Your task to perform on an android device: turn on notifications settings in the gmail app Image 0: 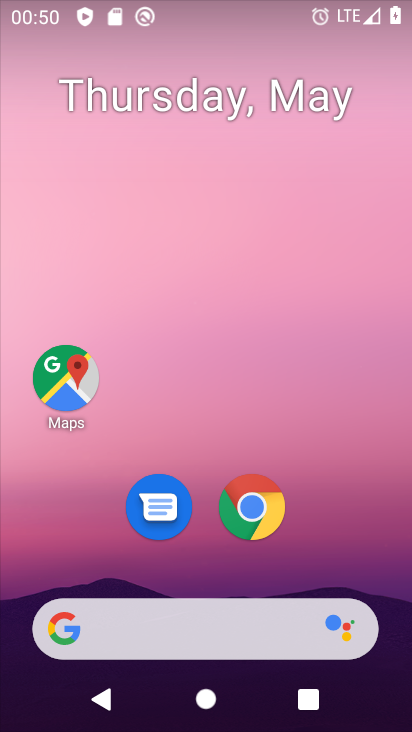
Step 0: drag from (194, 573) to (195, 211)
Your task to perform on an android device: turn on notifications settings in the gmail app Image 1: 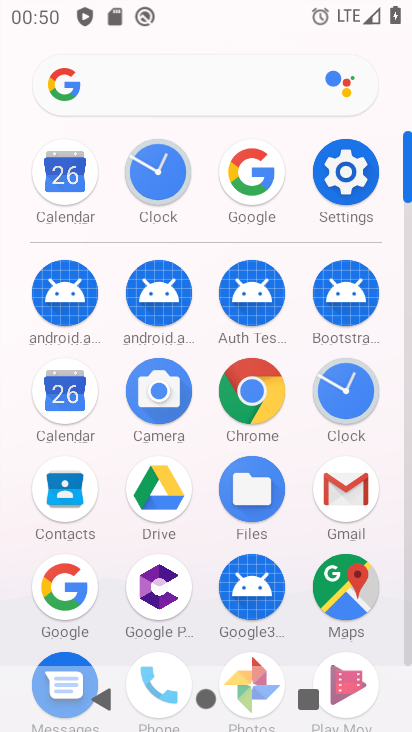
Step 1: click (344, 498)
Your task to perform on an android device: turn on notifications settings in the gmail app Image 2: 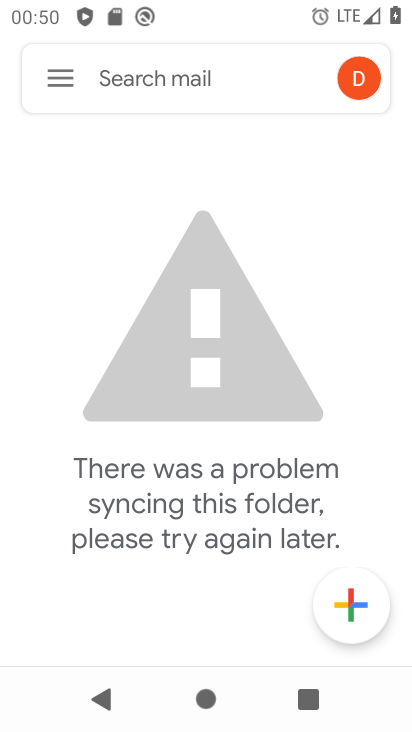
Step 2: click (68, 90)
Your task to perform on an android device: turn on notifications settings in the gmail app Image 3: 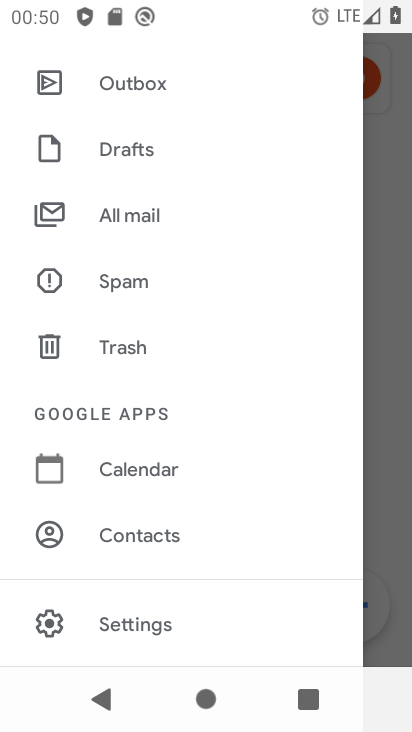
Step 3: click (205, 609)
Your task to perform on an android device: turn on notifications settings in the gmail app Image 4: 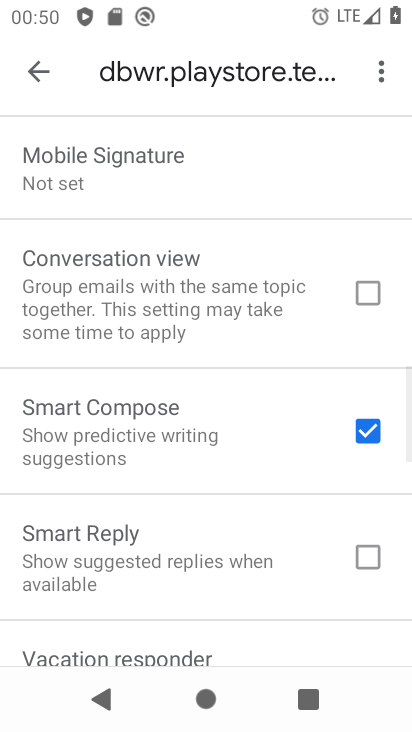
Step 4: drag from (177, 589) to (191, 262)
Your task to perform on an android device: turn on notifications settings in the gmail app Image 5: 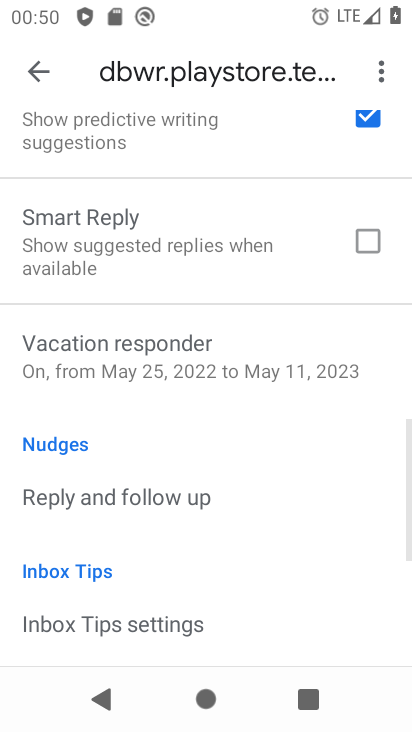
Step 5: drag from (191, 527) to (209, 331)
Your task to perform on an android device: turn on notifications settings in the gmail app Image 6: 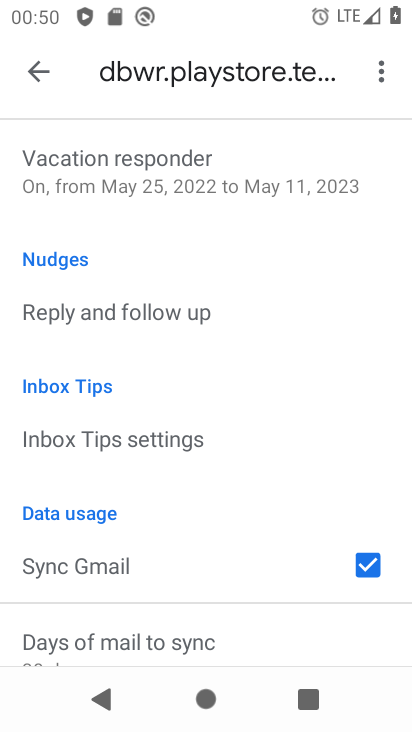
Step 6: drag from (188, 544) to (227, 319)
Your task to perform on an android device: turn on notifications settings in the gmail app Image 7: 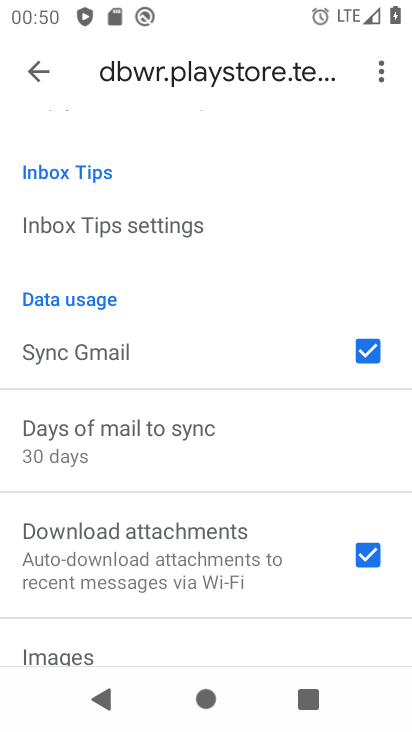
Step 7: drag from (239, 208) to (203, 505)
Your task to perform on an android device: turn on notifications settings in the gmail app Image 8: 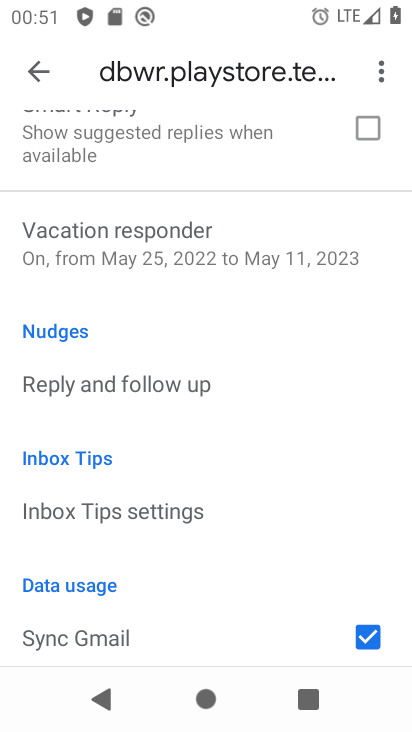
Step 8: drag from (222, 225) to (222, 458)
Your task to perform on an android device: turn on notifications settings in the gmail app Image 9: 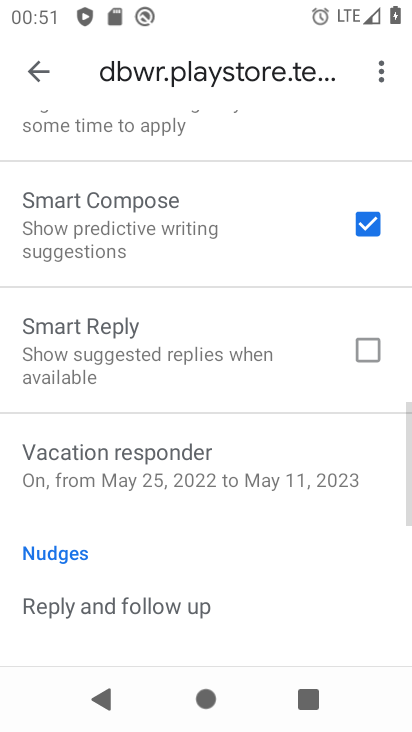
Step 9: drag from (219, 210) to (213, 521)
Your task to perform on an android device: turn on notifications settings in the gmail app Image 10: 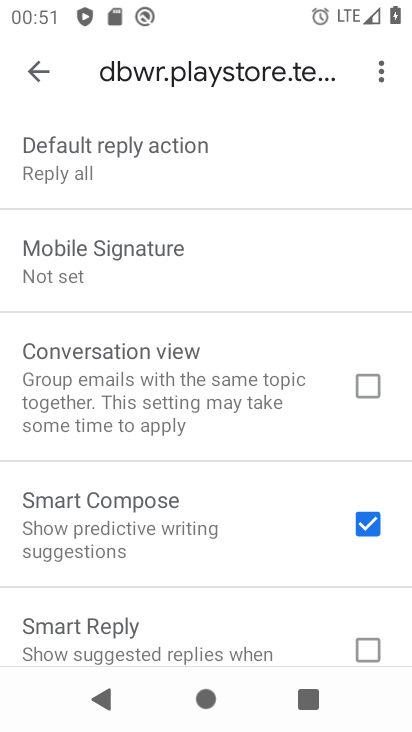
Step 10: drag from (199, 227) to (199, 562)
Your task to perform on an android device: turn on notifications settings in the gmail app Image 11: 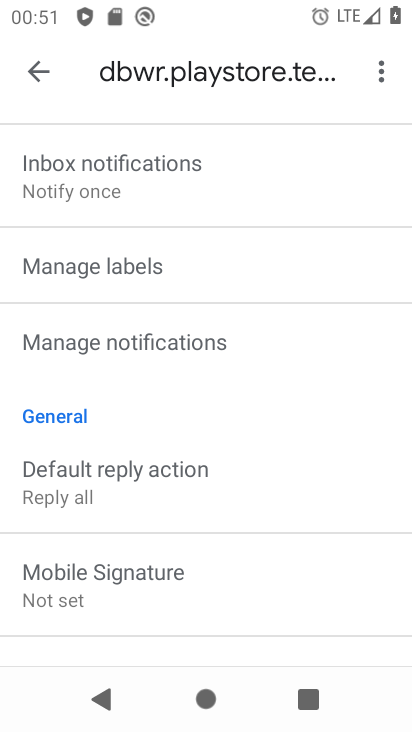
Step 11: click (172, 342)
Your task to perform on an android device: turn on notifications settings in the gmail app Image 12: 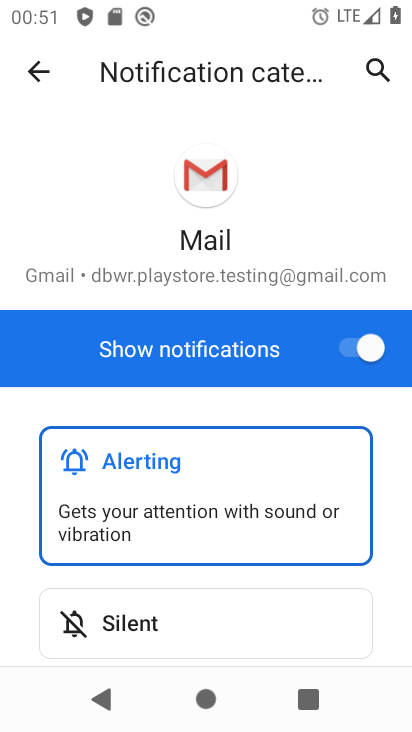
Step 12: task complete